Your task to perform on an android device: Go to Google Image 0: 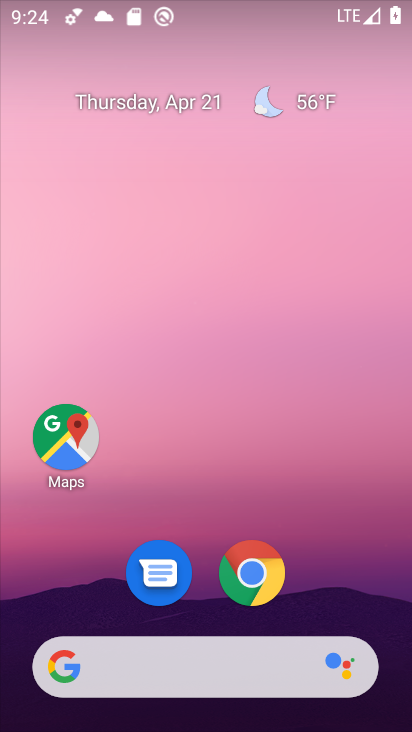
Step 0: drag from (349, 556) to (347, 131)
Your task to perform on an android device: Go to Google Image 1: 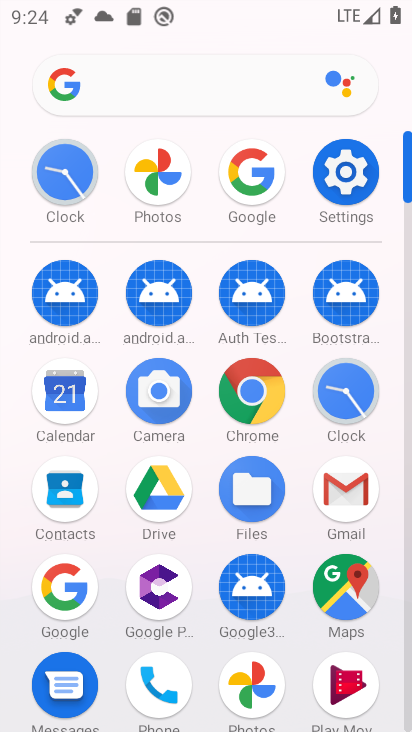
Step 1: click (76, 577)
Your task to perform on an android device: Go to Google Image 2: 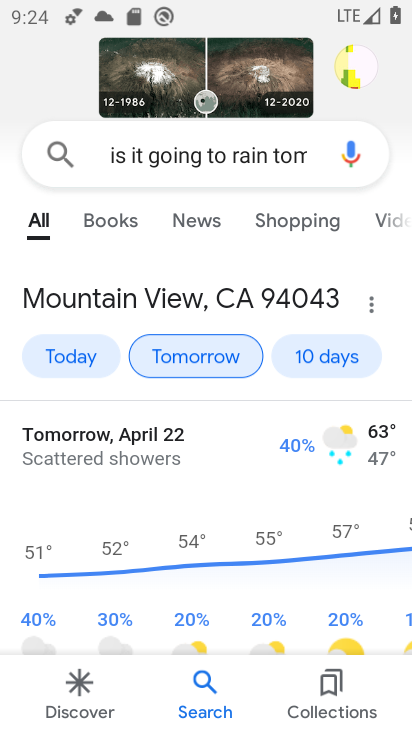
Step 2: task complete